Your task to perform on an android device: turn on location history Image 0: 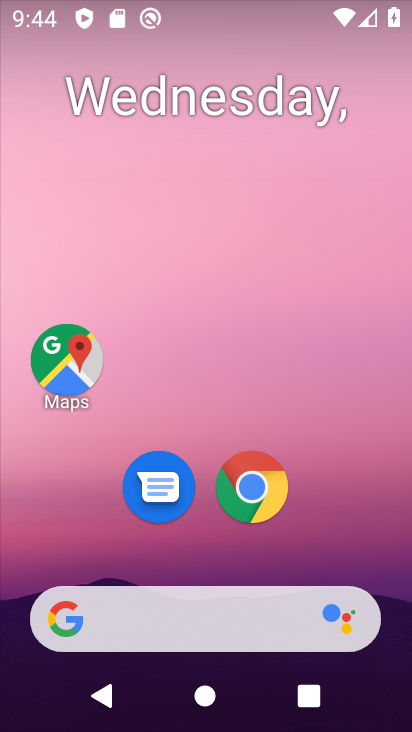
Step 0: drag from (161, 680) to (68, 32)
Your task to perform on an android device: turn on location history Image 1: 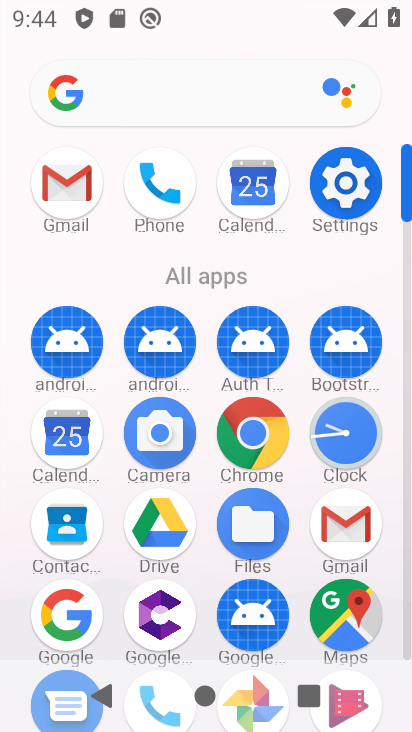
Step 1: click (346, 200)
Your task to perform on an android device: turn on location history Image 2: 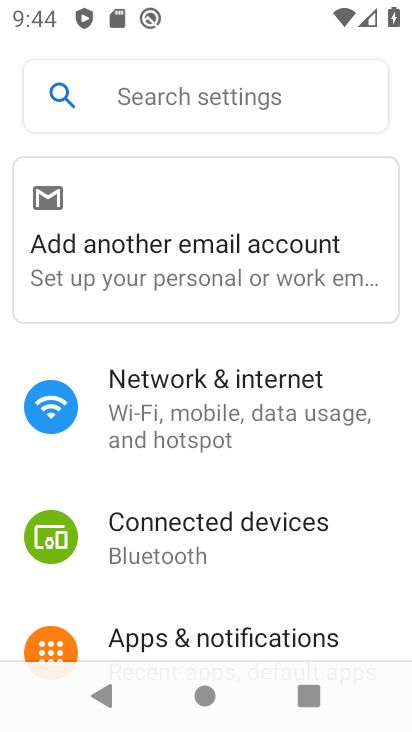
Step 2: drag from (102, 554) to (13, 19)
Your task to perform on an android device: turn on location history Image 3: 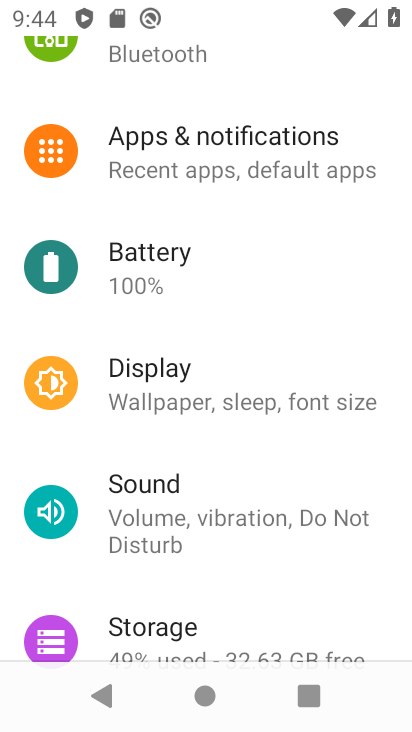
Step 3: drag from (202, 549) to (119, 102)
Your task to perform on an android device: turn on location history Image 4: 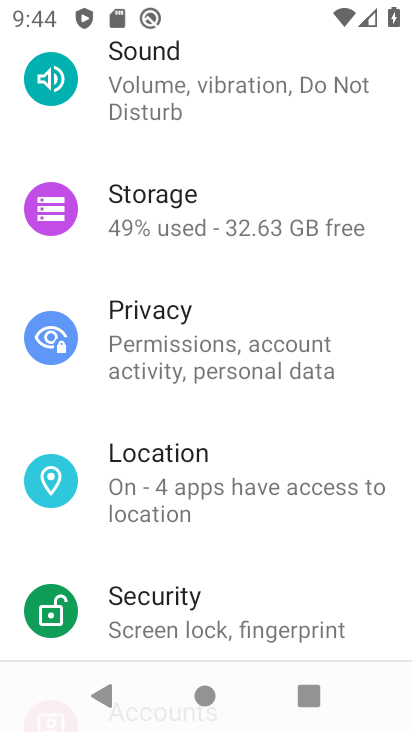
Step 4: click (220, 472)
Your task to perform on an android device: turn on location history Image 5: 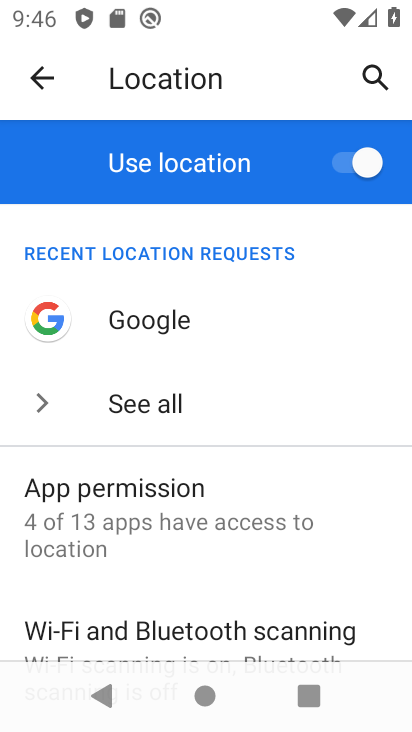
Step 5: task complete